Your task to perform on an android device: View the shopping cart on costco. Search for "lg ultragear" on costco, select the first entry, add it to the cart, then select checkout. Image 0: 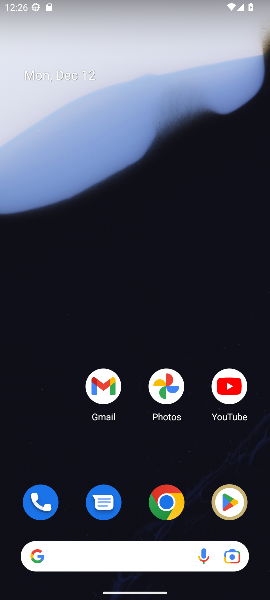
Step 0: click (173, 507)
Your task to perform on an android device: View the shopping cart on costco. Search for "lg ultragear" on costco, select the first entry, add it to the cart, then select checkout. Image 1: 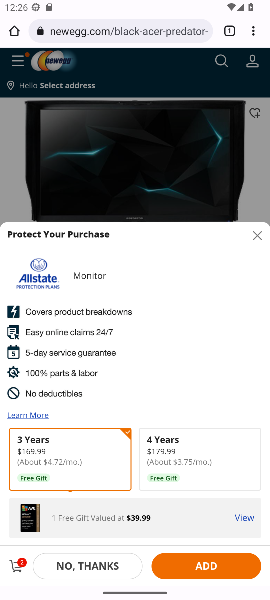
Step 1: click (218, 573)
Your task to perform on an android device: View the shopping cart on costco. Search for "lg ultragear" on costco, select the first entry, add it to the cart, then select checkout. Image 2: 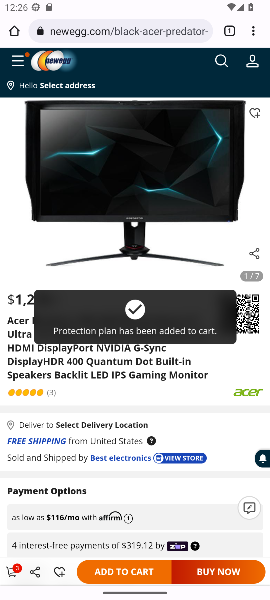
Step 2: task complete